Your task to perform on an android device: Open settings Image 0: 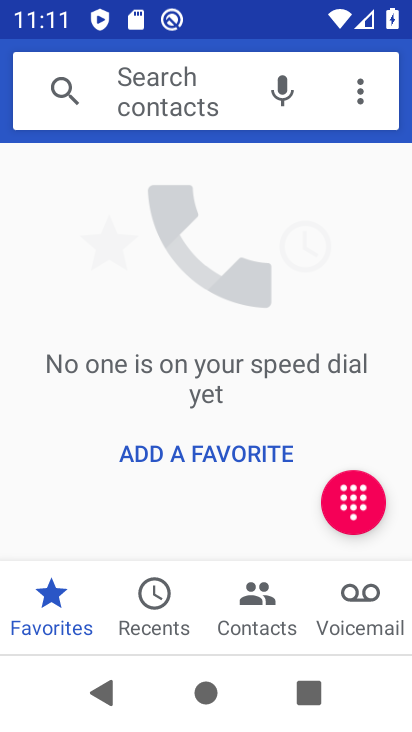
Step 0: press home button
Your task to perform on an android device: Open settings Image 1: 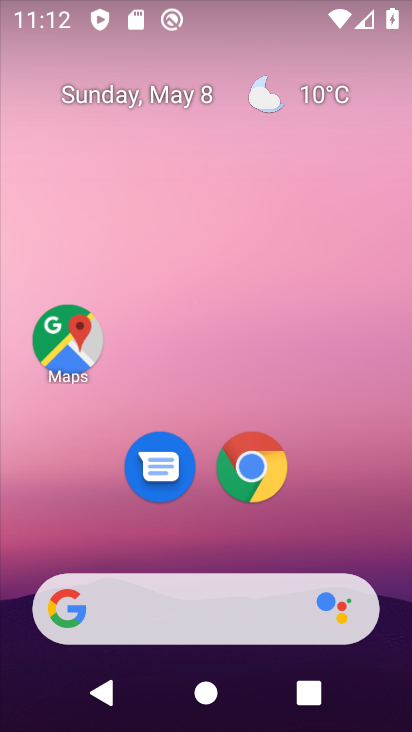
Step 1: drag from (406, 528) to (335, 128)
Your task to perform on an android device: Open settings Image 2: 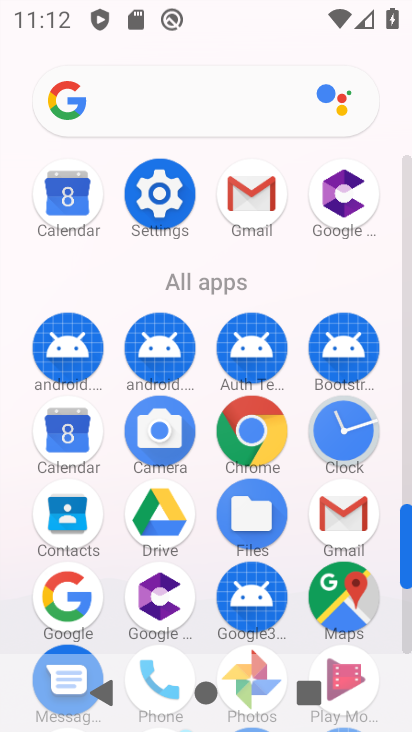
Step 2: click (172, 200)
Your task to perform on an android device: Open settings Image 3: 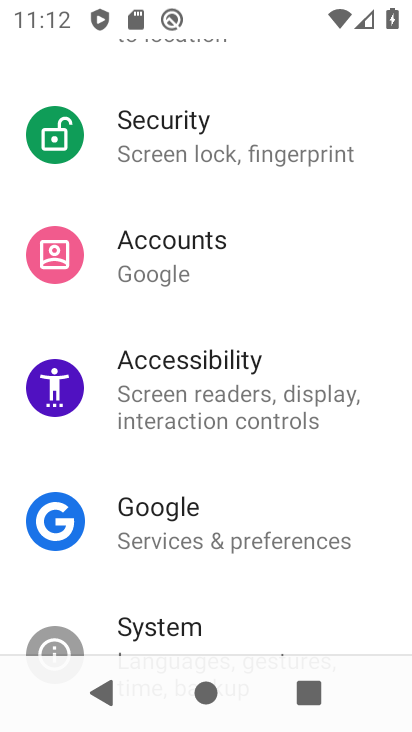
Step 3: task complete